Your task to perform on an android device: open app "YouTube Kids" Image 0: 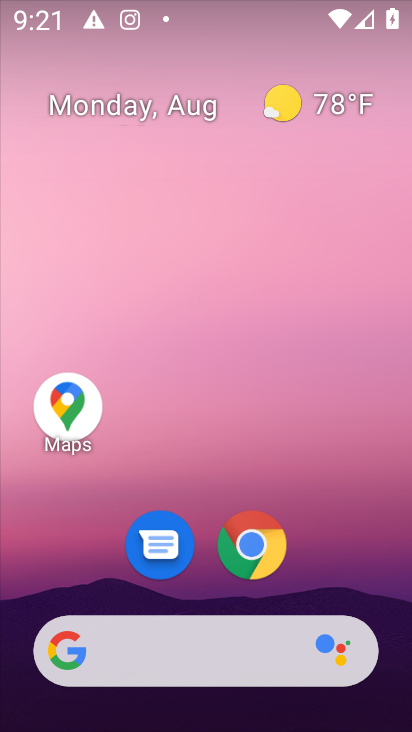
Step 0: press home button
Your task to perform on an android device: open app "YouTube Kids" Image 1: 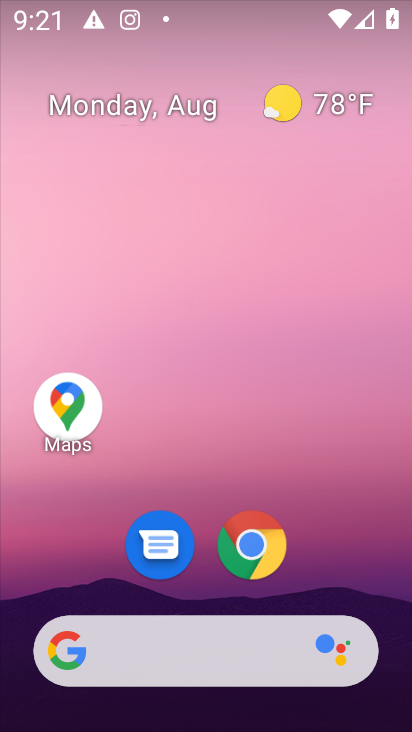
Step 1: drag from (360, 592) to (349, 62)
Your task to perform on an android device: open app "YouTube Kids" Image 2: 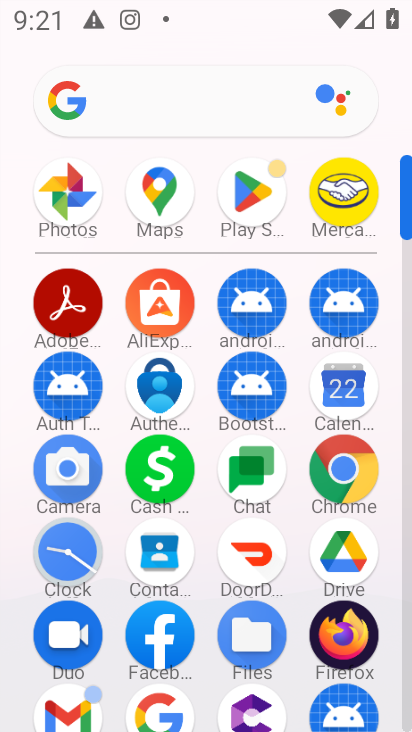
Step 2: click (252, 189)
Your task to perform on an android device: open app "YouTube Kids" Image 3: 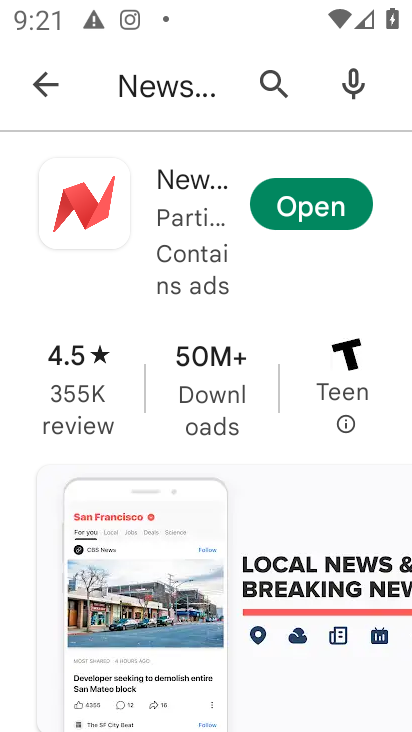
Step 3: press back button
Your task to perform on an android device: open app "YouTube Kids" Image 4: 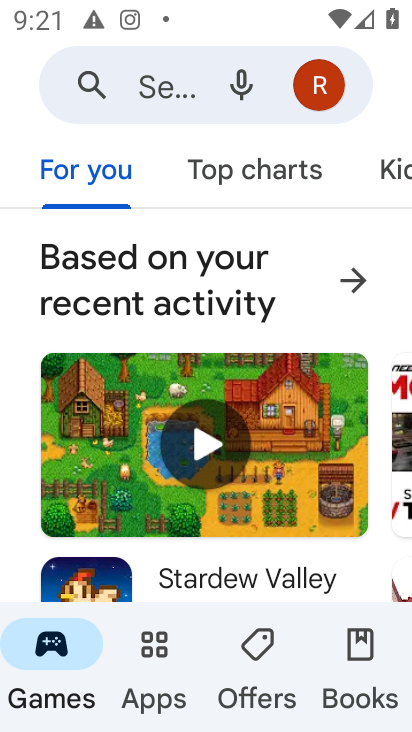
Step 4: click (179, 93)
Your task to perform on an android device: open app "YouTube Kids" Image 5: 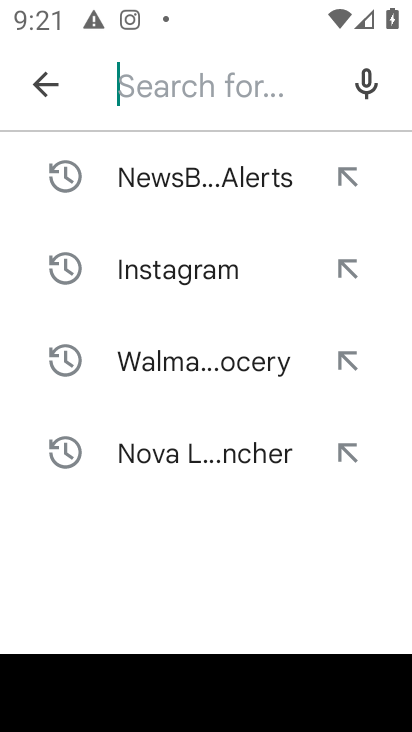
Step 5: type "YouTube Kids"
Your task to perform on an android device: open app "YouTube Kids" Image 6: 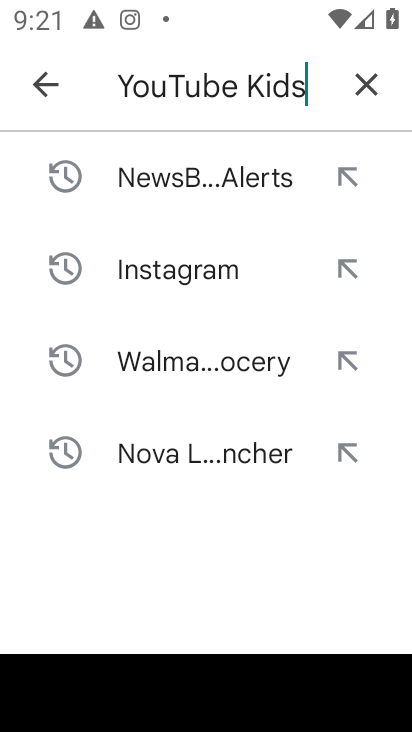
Step 6: press enter
Your task to perform on an android device: open app "YouTube Kids" Image 7: 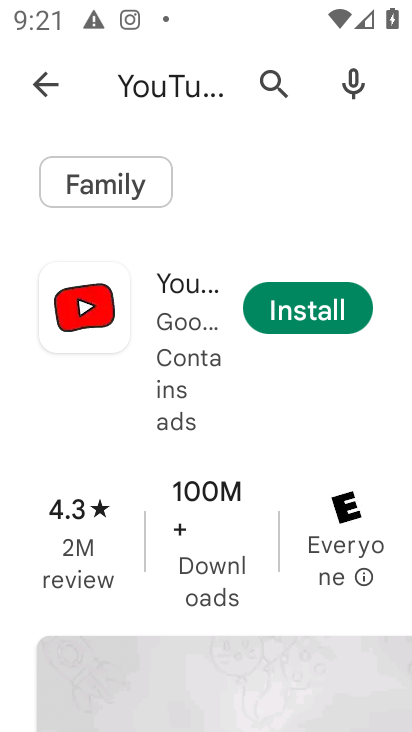
Step 7: task complete